Your task to perform on an android device: Search for Italian restaurants on Maps Image 0: 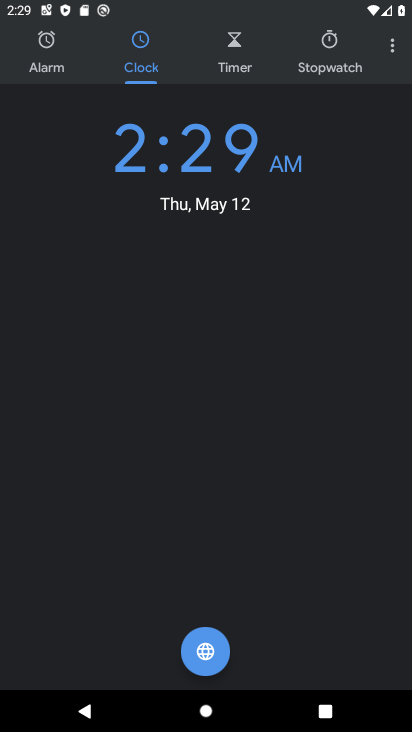
Step 0: press back button
Your task to perform on an android device: Search for Italian restaurants on Maps Image 1: 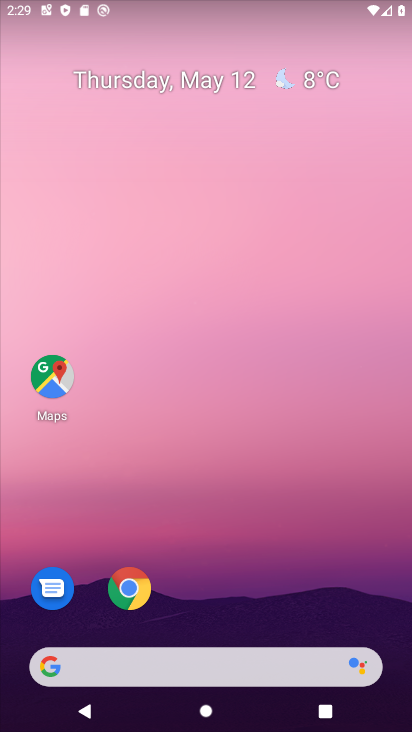
Step 1: click (50, 363)
Your task to perform on an android device: Search for Italian restaurants on Maps Image 2: 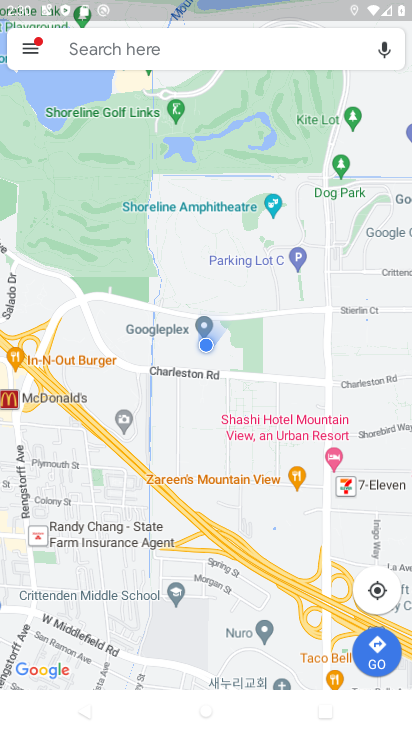
Step 2: click (177, 58)
Your task to perform on an android device: Search for Italian restaurants on Maps Image 3: 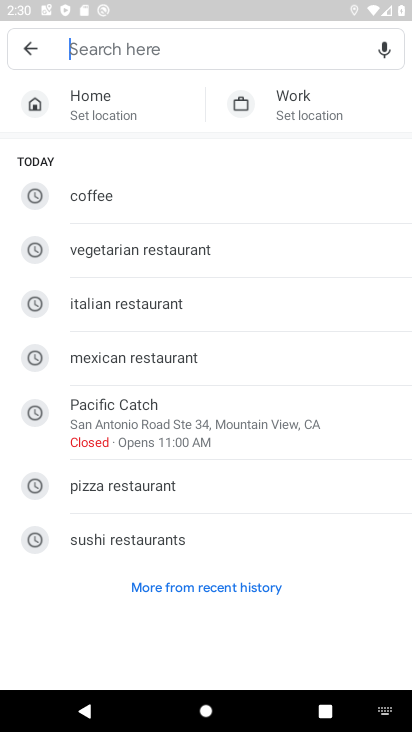
Step 3: click (141, 312)
Your task to perform on an android device: Search for Italian restaurants on Maps Image 4: 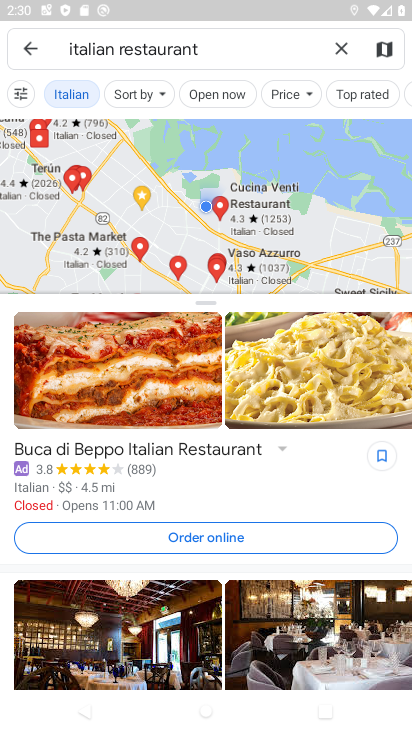
Step 4: task complete